Your task to perform on an android device: Do I have any events this weekend? Image 0: 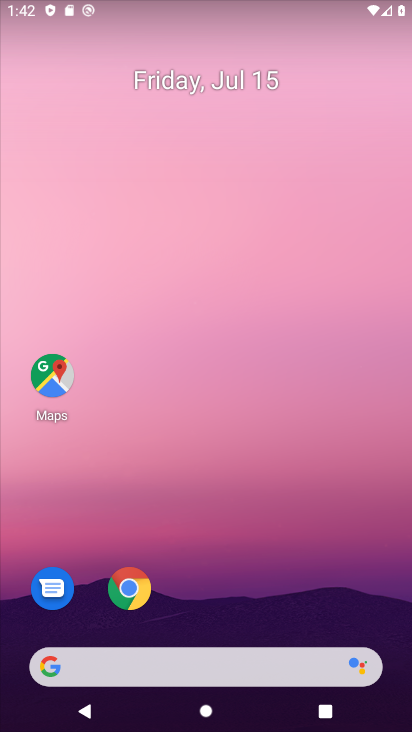
Step 0: drag from (271, 604) to (203, 85)
Your task to perform on an android device: Do I have any events this weekend? Image 1: 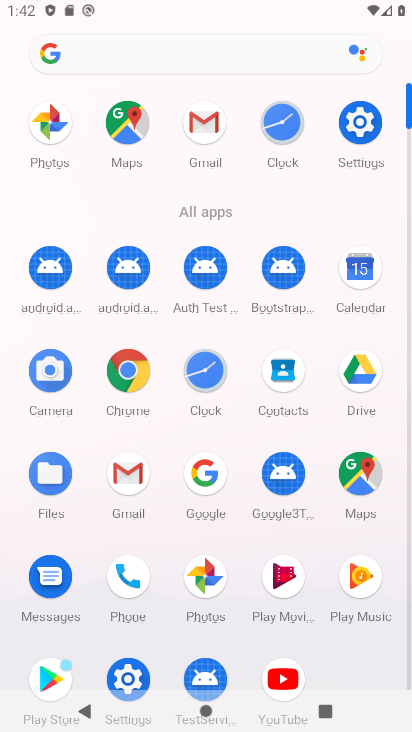
Step 1: click (369, 262)
Your task to perform on an android device: Do I have any events this weekend? Image 2: 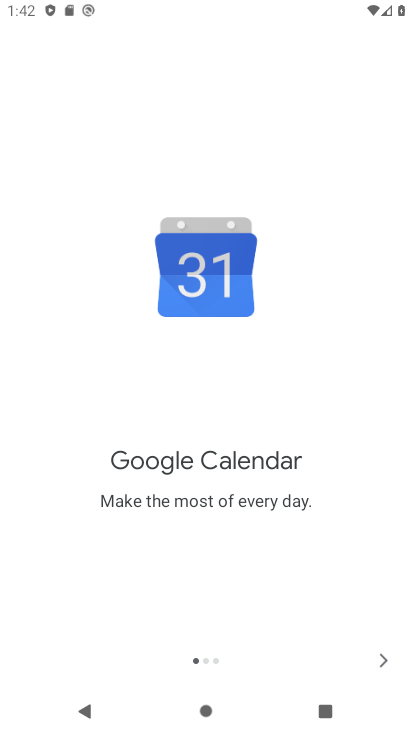
Step 2: click (384, 666)
Your task to perform on an android device: Do I have any events this weekend? Image 3: 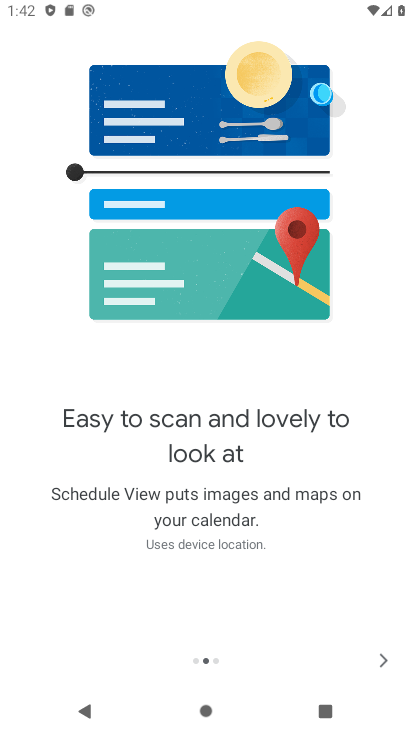
Step 3: click (372, 665)
Your task to perform on an android device: Do I have any events this weekend? Image 4: 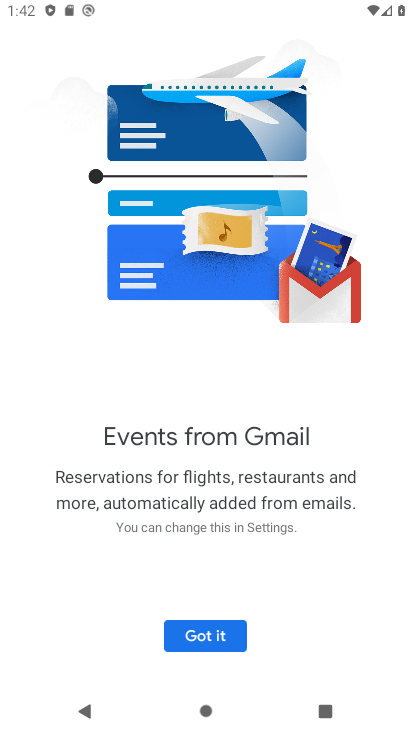
Step 4: click (208, 623)
Your task to perform on an android device: Do I have any events this weekend? Image 5: 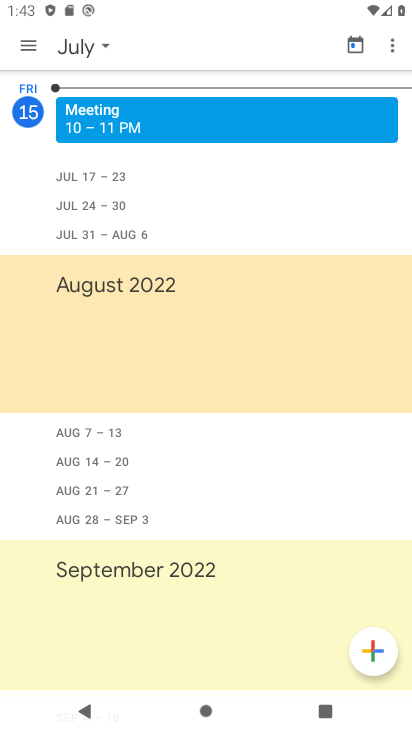
Step 5: click (70, 53)
Your task to perform on an android device: Do I have any events this weekend? Image 6: 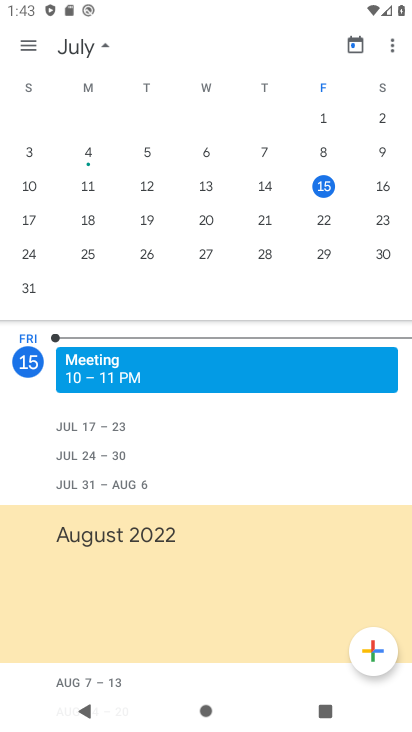
Step 6: click (379, 185)
Your task to perform on an android device: Do I have any events this weekend? Image 7: 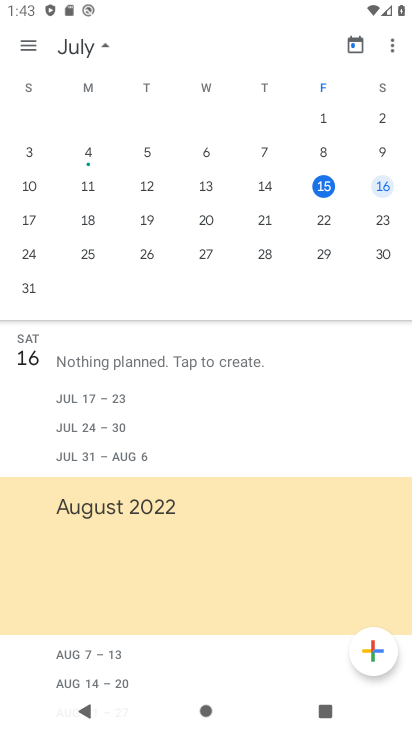
Step 7: click (36, 222)
Your task to perform on an android device: Do I have any events this weekend? Image 8: 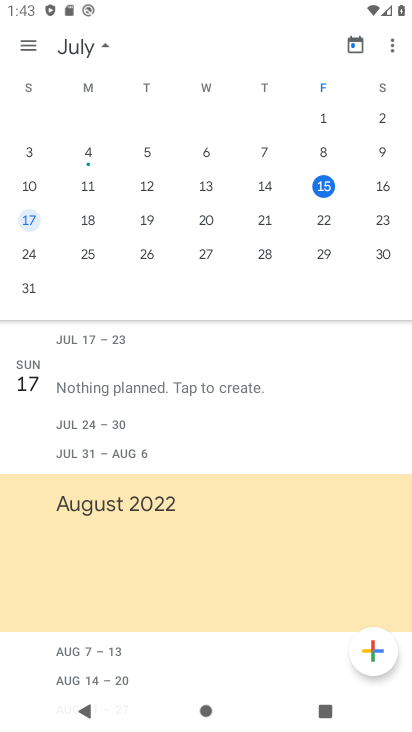
Step 8: task complete